Your task to perform on an android device: Show me the alarms in the clock app Image 0: 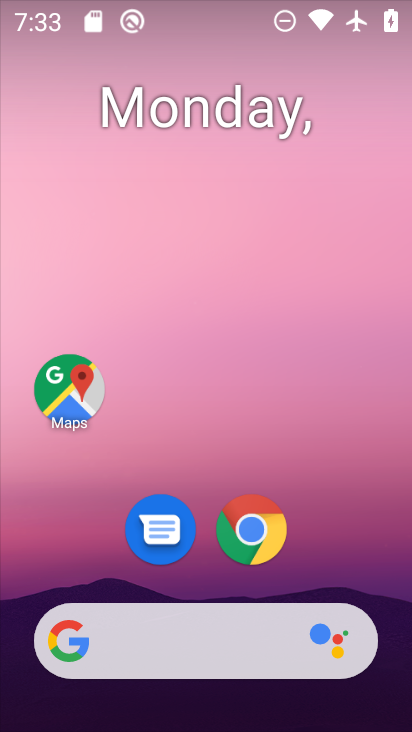
Step 0: drag from (200, 469) to (194, 15)
Your task to perform on an android device: Show me the alarms in the clock app Image 1: 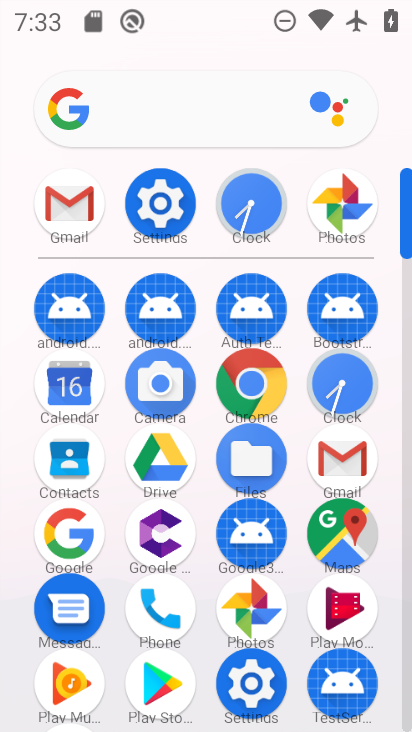
Step 1: click (335, 378)
Your task to perform on an android device: Show me the alarms in the clock app Image 2: 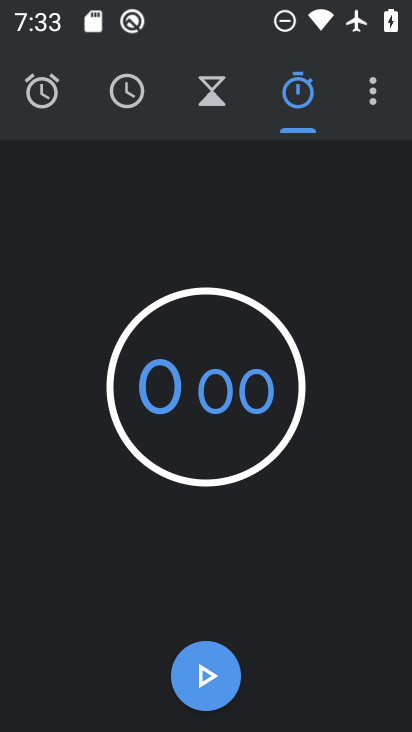
Step 2: click (51, 84)
Your task to perform on an android device: Show me the alarms in the clock app Image 3: 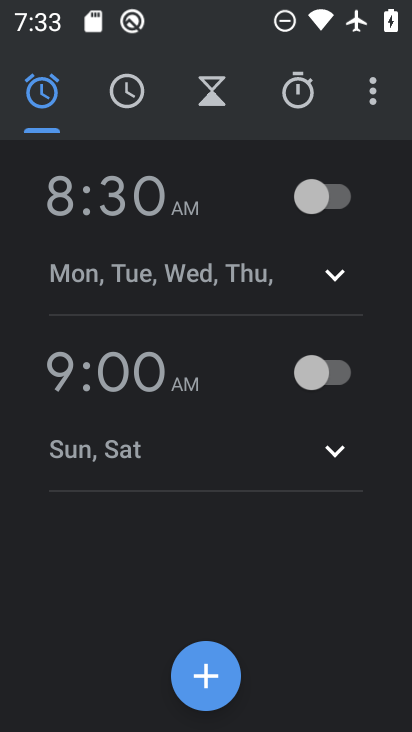
Step 3: task complete